Your task to perform on an android device: Is it going to rain this weekend? Image 0: 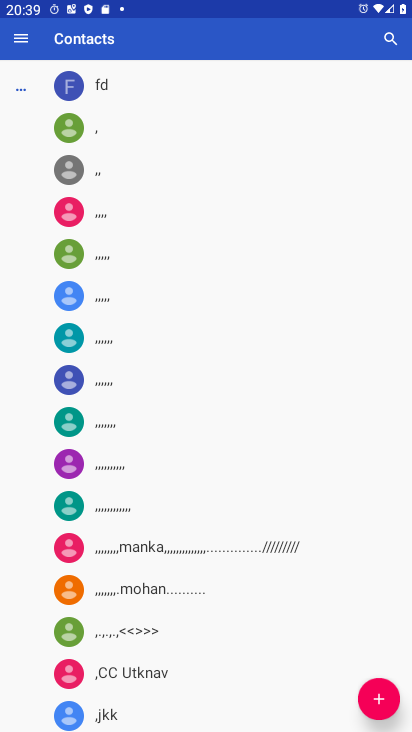
Step 0: press home button
Your task to perform on an android device: Is it going to rain this weekend? Image 1: 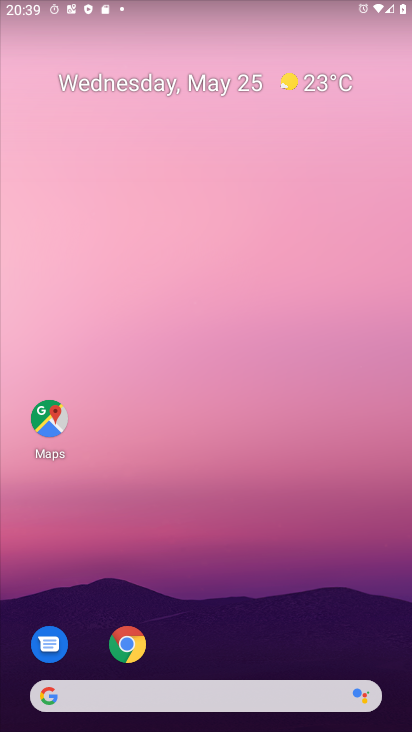
Step 1: drag from (315, 699) to (208, 76)
Your task to perform on an android device: Is it going to rain this weekend? Image 2: 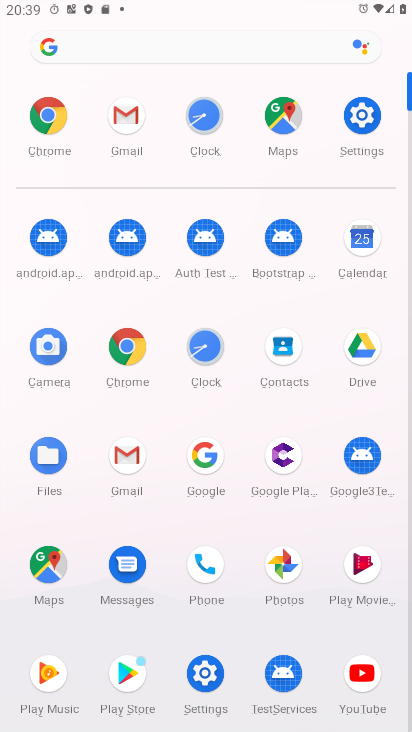
Step 2: click (99, 39)
Your task to perform on an android device: Is it going to rain this weekend? Image 3: 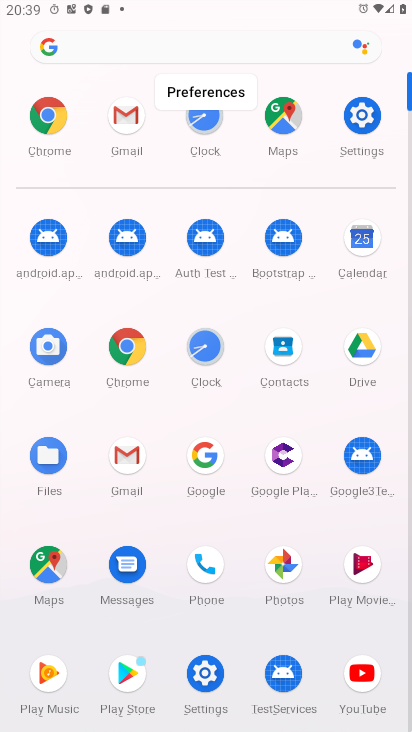
Step 3: click (145, 57)
Your task to perform on an android device: Is it going to rain this weekend? Image 4: 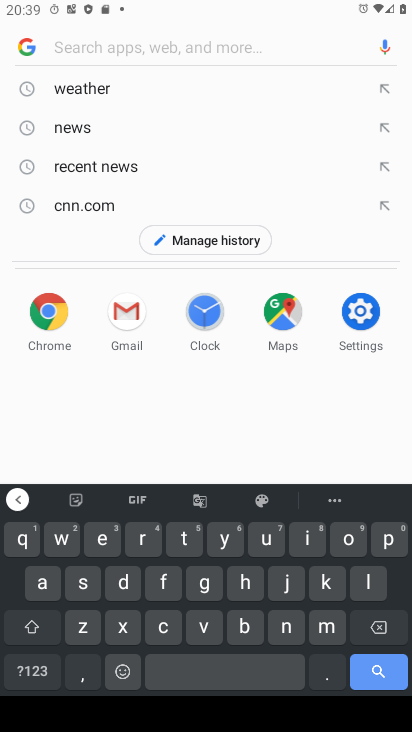
Step 4: click (119, 94)
Your task to perform on an android device: Is it going to rain this weekend? Image 5: 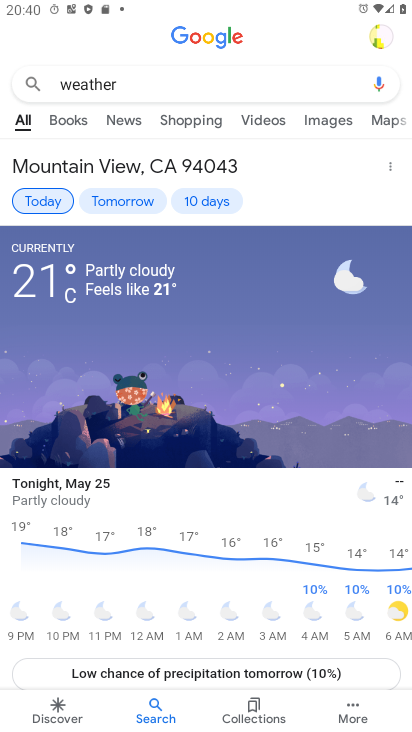
Step 5: click (199, 194)
Your task to perform on an android device: Is it going to rain this weekend? Image 6: 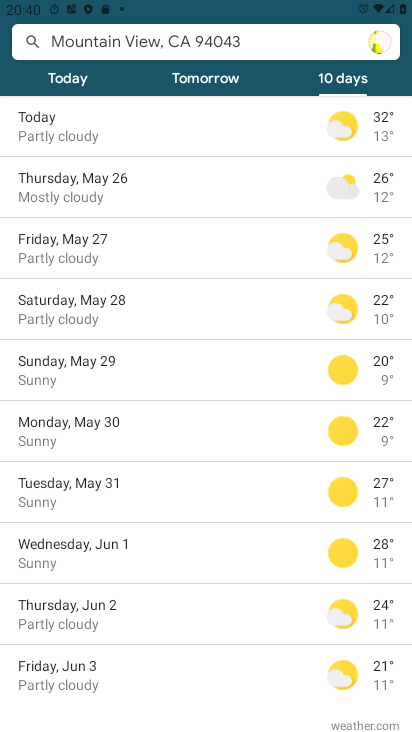
Step 6: task complete